Your task to perform on an android device: Check the news Image 0: 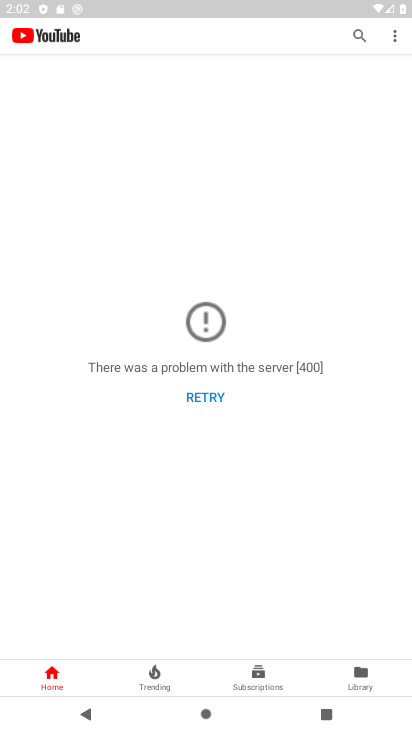
Step 0: press home button
Your task to perform on an android device: Check the news Image 1: 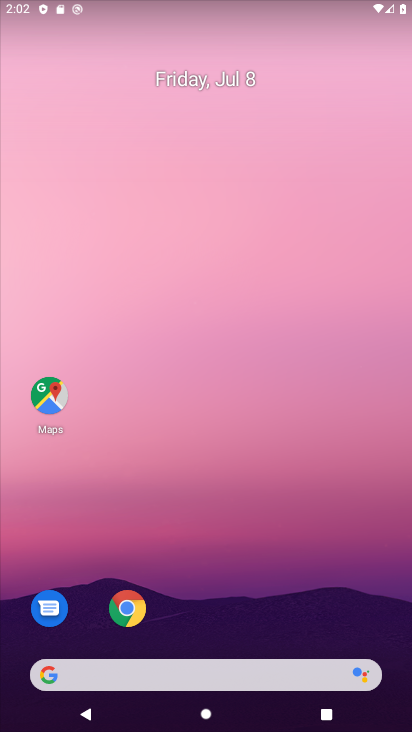
Step 1: drag from (360, 587) to (293, 298)
Your task to perform on an android device: Check the news Image 2: 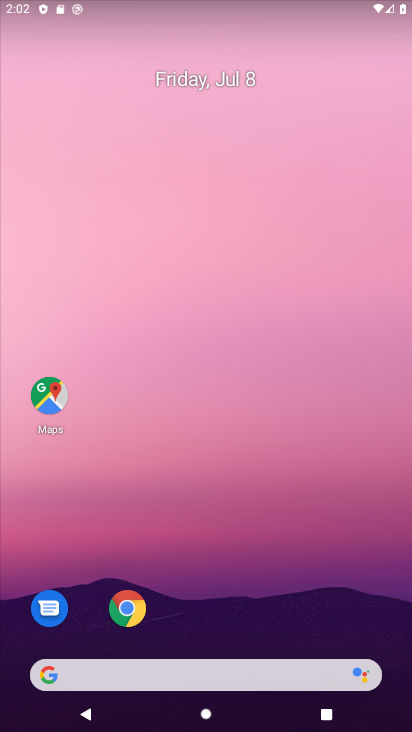
Step 2: click (209, 673)
Your task to perform on an android device: Check the news Image 3: 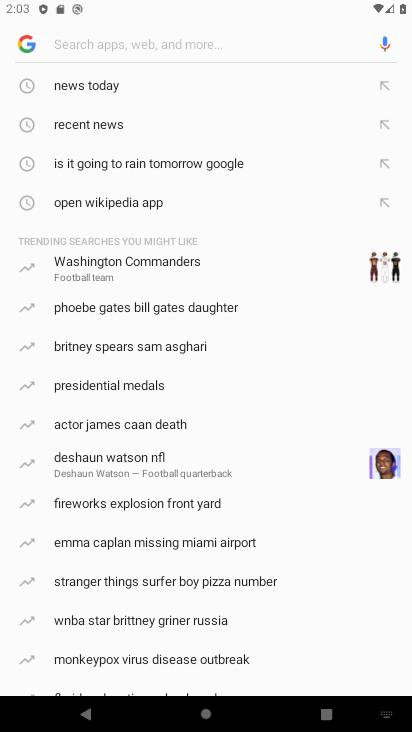
Step 3: type "news"
Your task to perform on an android device: Check the news Image 4: 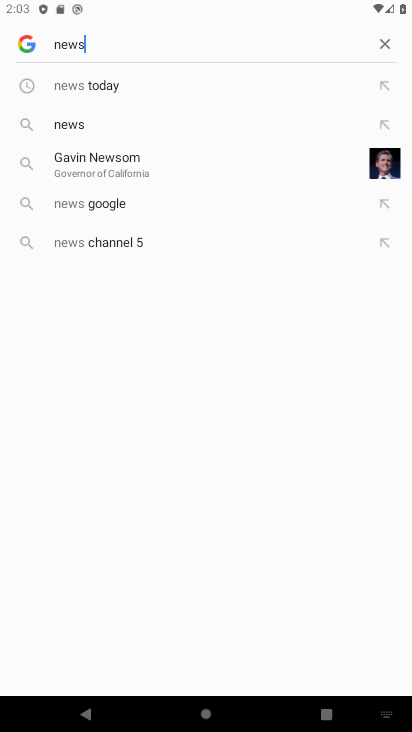
Step 4: click (73, 128)
Your task to perform on an android device: Check the news Image 5: 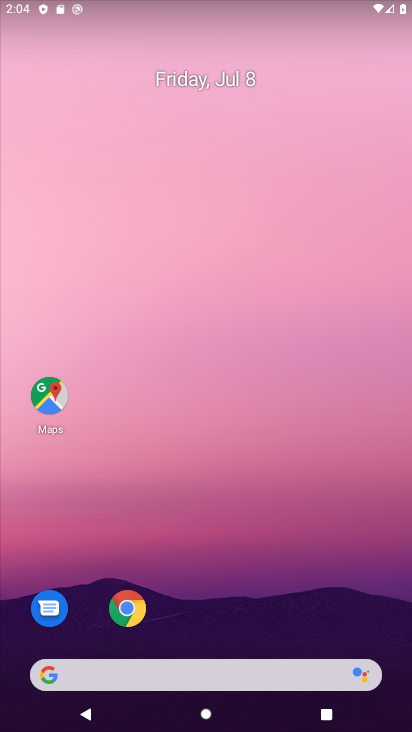
Step 5: click (236, 680)
Your task to perform on an android device: Check the news Image 6: 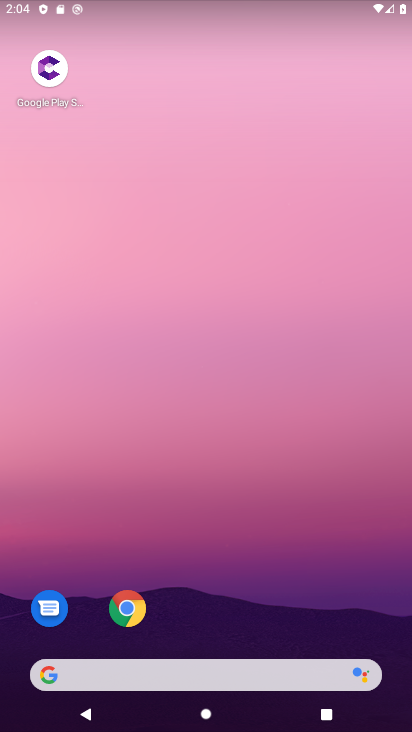
Step 6: click (280, 669)
Your task to perform on an android device: Check the news Image 7: 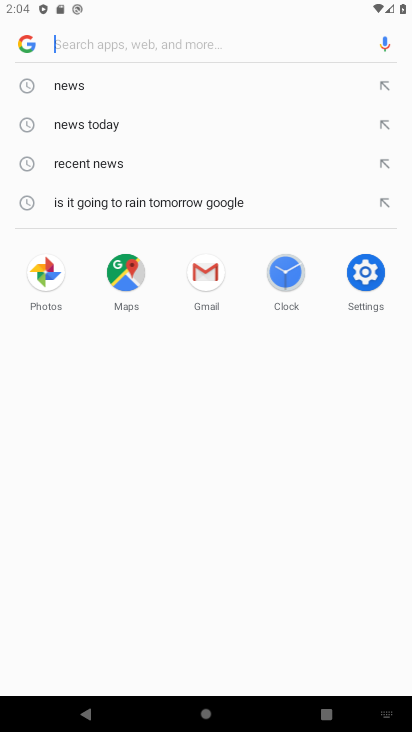
Step 7: press home button
Your task to perform on an android device: Check the news Image 8: 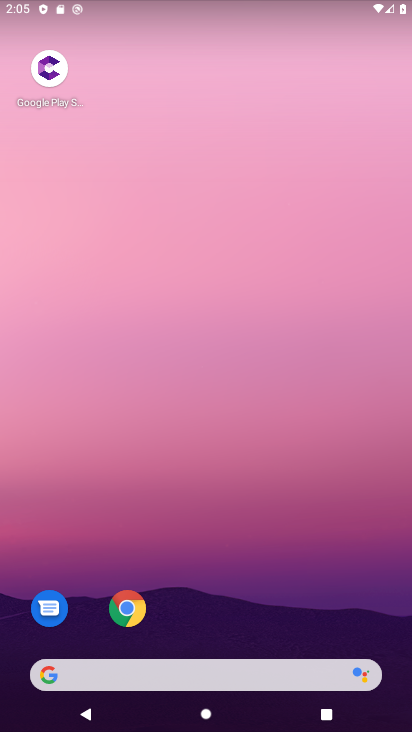
Step 8: drag from (10, 381) to (177, 394)
Your task to perform on an android device: Check the news Image 9: 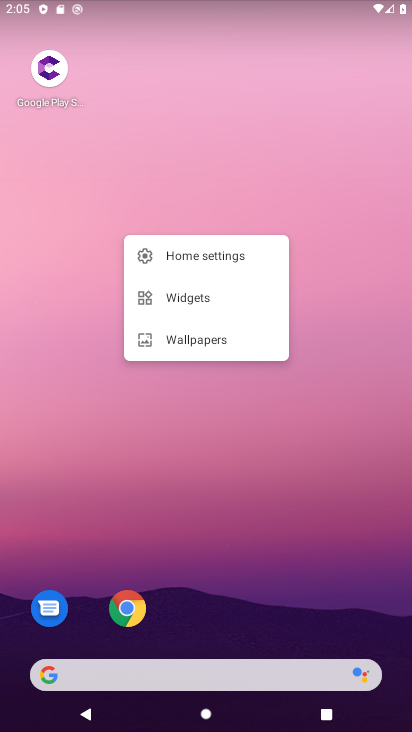
Step 9: drag from (19, 452) to (381, 462)
Your task to perform on an android device: Check the news Image 10: 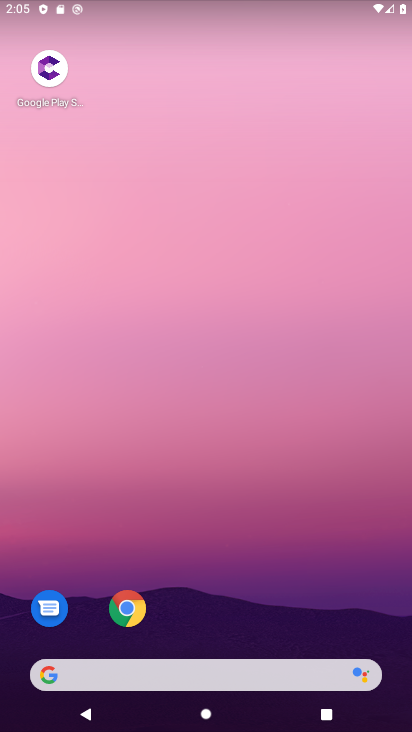
Step 10: drag from (13, 490) to (254, 489)
Your task to perform on an android device: Check the news Image 11: 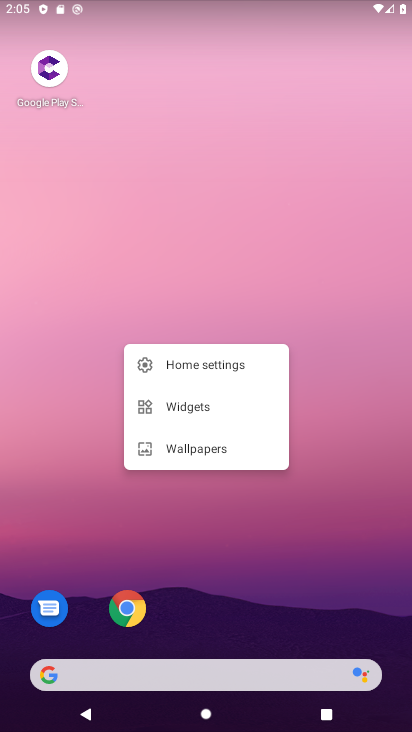
Step 11: click (15, 526)
Your task to perform on an android device: Check the news Image 12: 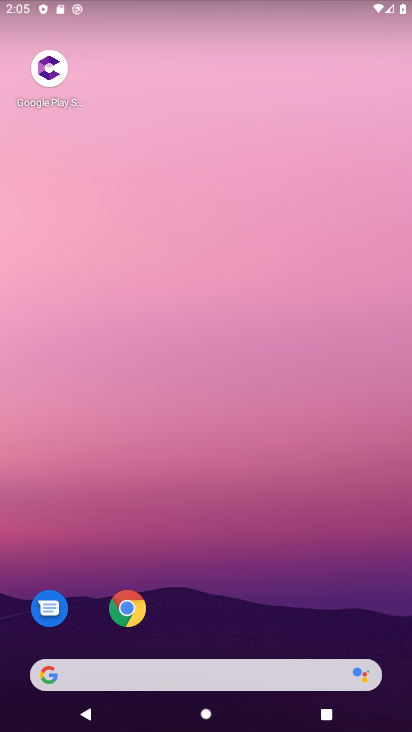
Step 12: drag from (15, 526) to (374, 573)
Your task to perform on an android device: Check the news Image 13: 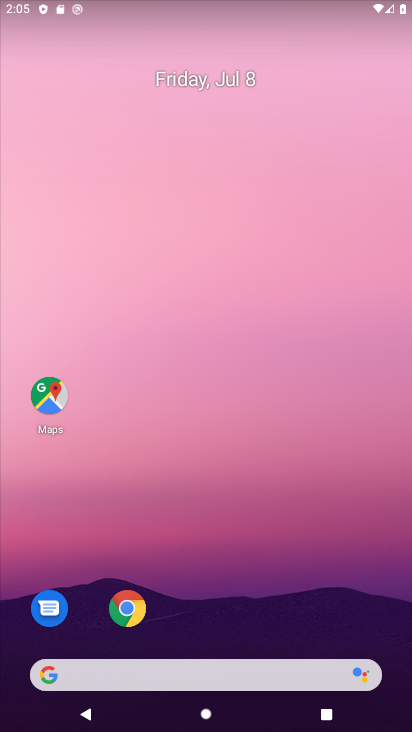
Step 13: drag from (17, 481) to (290, 486)
Your task to perform on an android device: Check the news Image 14: 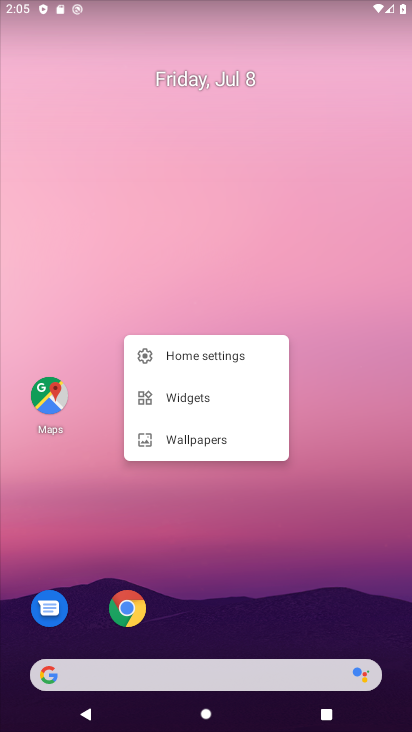
Step 14: click (63, 310)
Your task to perform on an android device: Check the news Image 15: 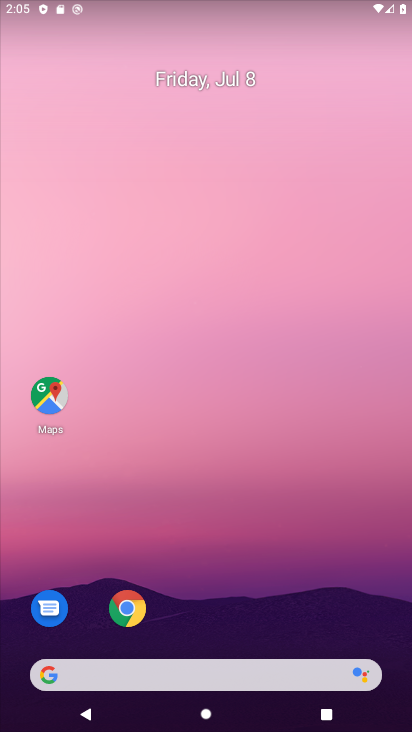
Step 15: task complete